Your task to perform on an android device: toggle javascript in the chrome app Image 0: 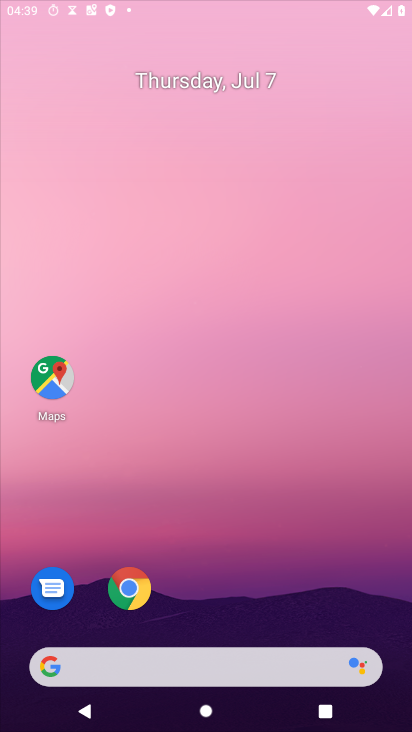
Step 0: press home button
Your task to perform on an android device: toggle javascript in the chrome app Image 1: 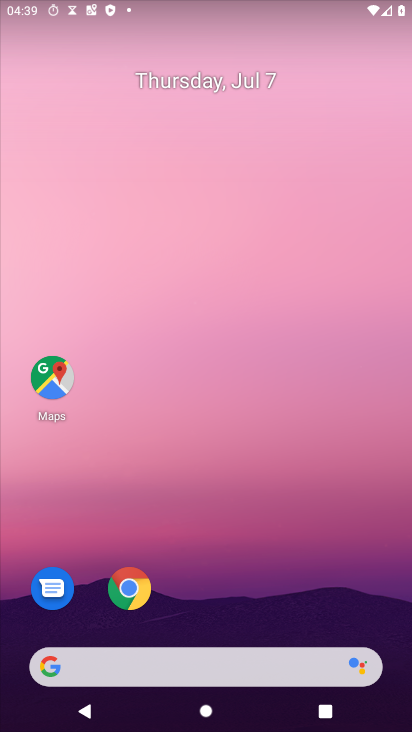
Step 1: drag from (217, 625) to (190, 182)
Your task to perform on an android device: toggle javascript in the chrome app Image 2: 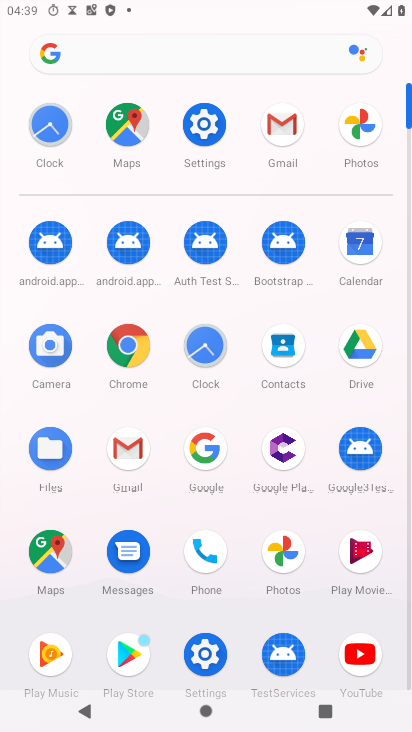
Step 2: click (133, 351)
Your task to perform on an android device: toggle javascript in the chrome app Image 3: 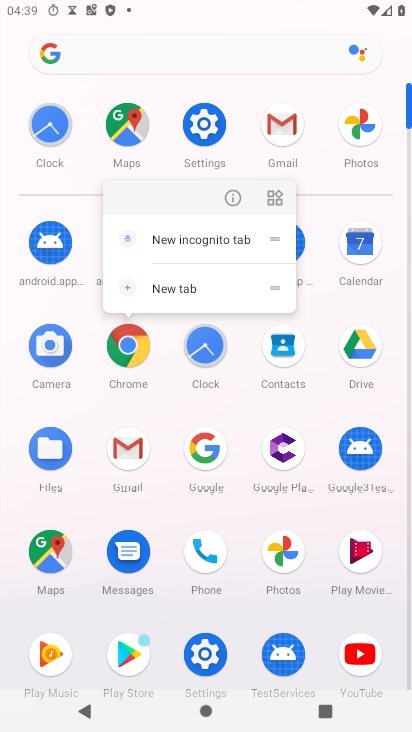
Step 3: click (136, 350)
Your task to perform on an android device: toggle javascript in the chrome app Image 4: 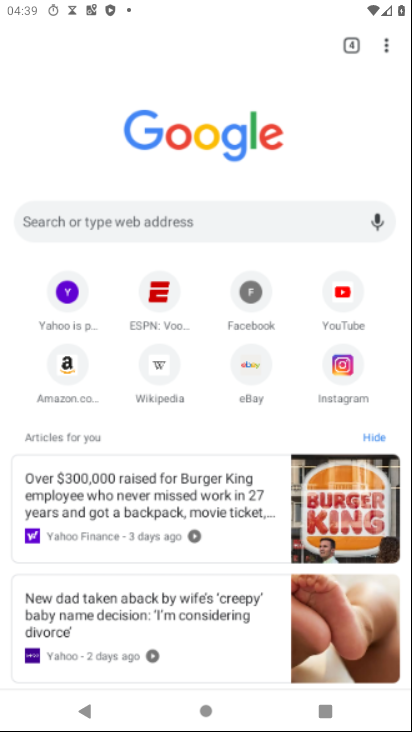
Step 4: drag from (386, 49) to (245, 385)
Your task to perform on an android device: toggle javascript in the chrome app Image 5: 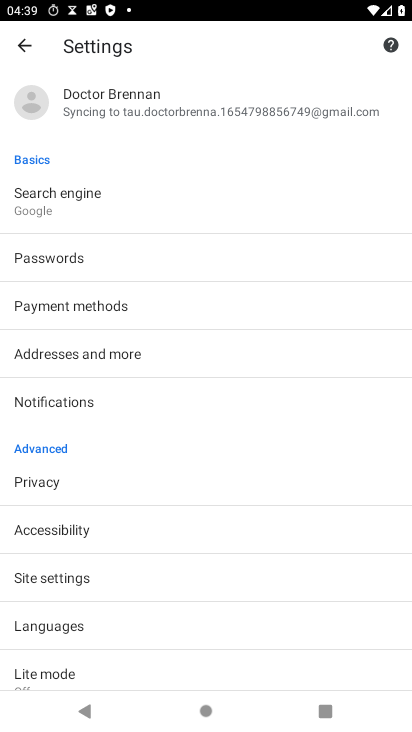
Step 5: click (45, 580)
Your task to perform on an android device: toggle javascript in the chrome app Image 6: 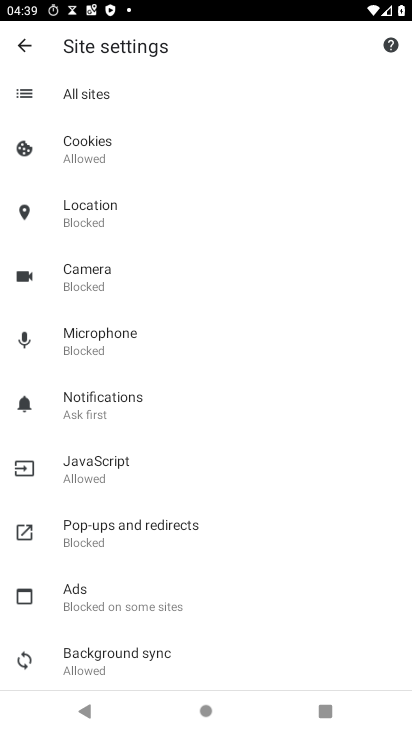
Step 6: click (103, 479)
Your task to perform on an android device: toggle javascript in the chrome app Image 7: 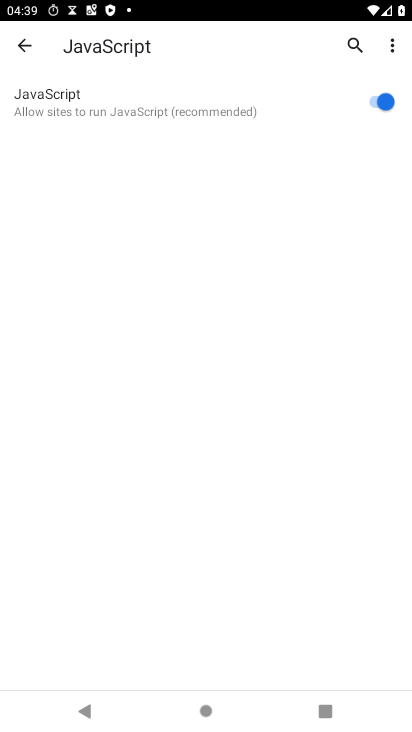
Step 7: click (392, 106)
Your task to perform on an android device: toggle javascript in the chrome app Image 8: 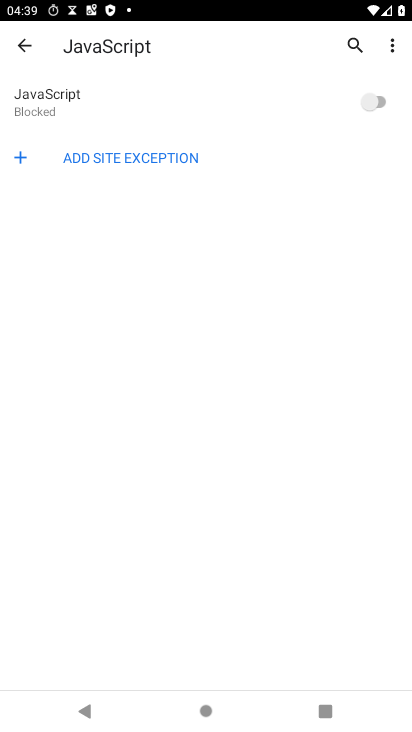
Step 8: task complete